Your task to perform on an android device: Open Amazon Image 0: 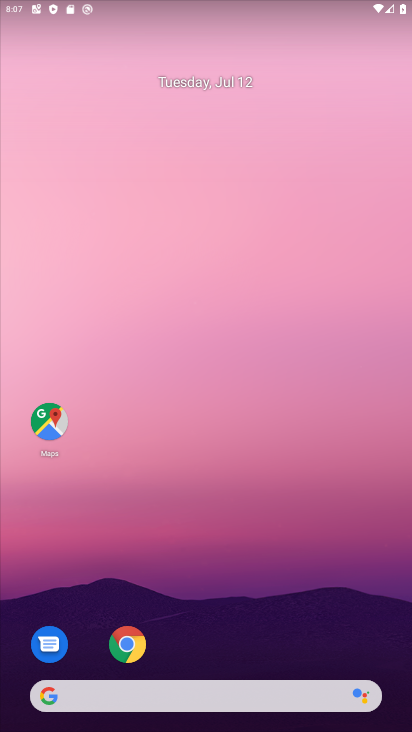
Step 0: drag from (193, 501) to (255, 244)
Your task to perform on an android device: Open Amazon Image 1: 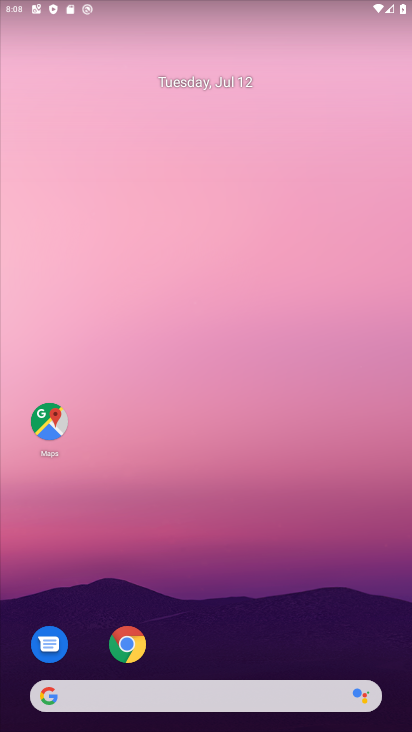
Step 1: drag from (203, 568) to (290, 221)
Your task to perform on an android device: Open Amazon Image 2: 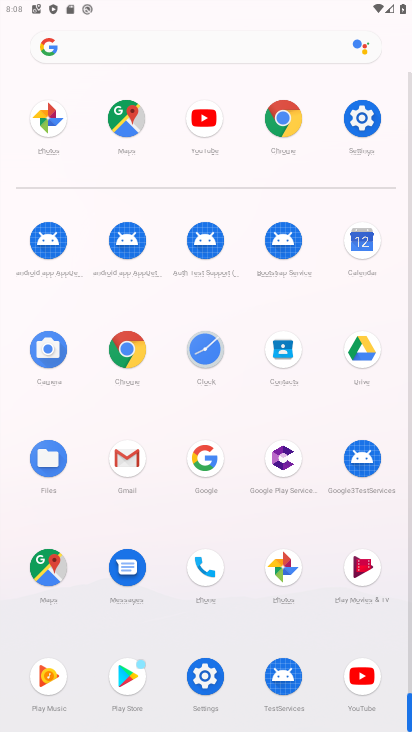
Step 2: click (117, 345)
Your task to perform on an android device: Open Amazon Image 3: 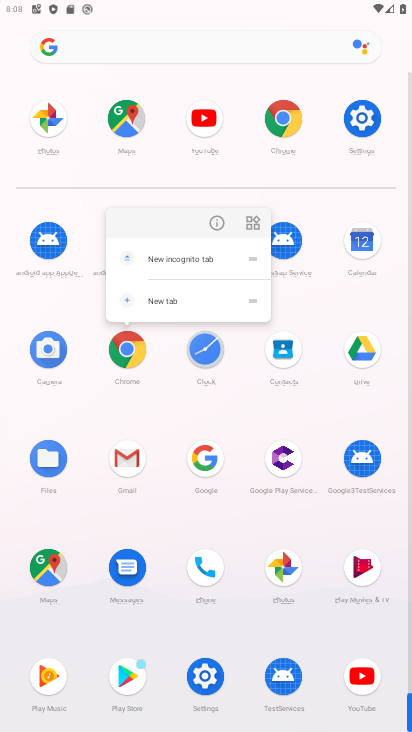
Step 3: click (213, 217)
Your task to perform on an android device: Open Amazon Image 4: 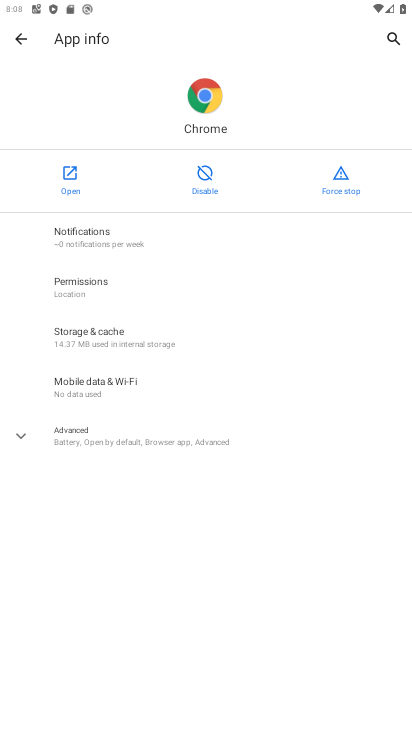
Step 4: drag from (206, 699) to (205, 584)
Your task to perform on an android device: Open Amazon Image 5: 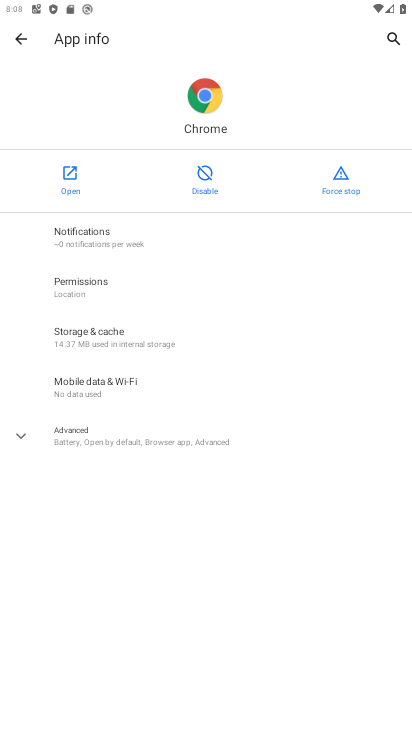
Step 5: click (68, 174)
Your task to perform on an android device: Open Amazon Image 6: 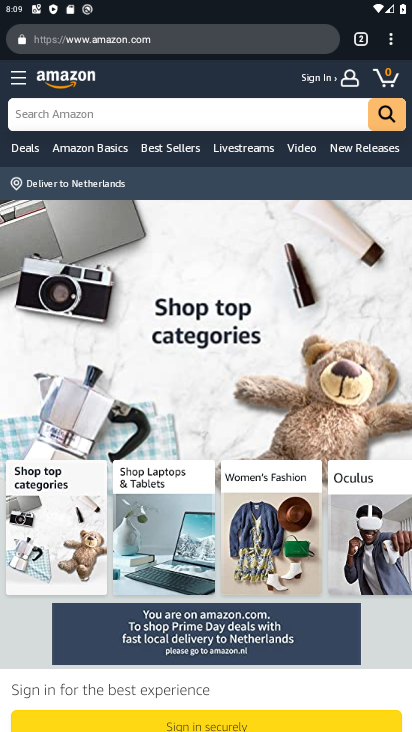
Step 6: task complete